Your task to perform on an android device: Open wifi settings Image 0: 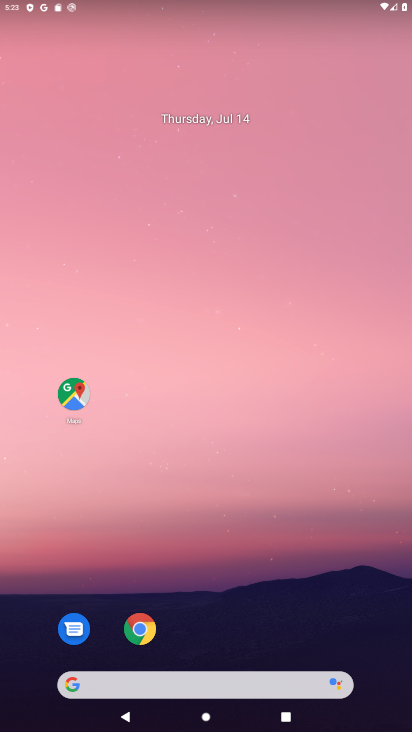
Step 0: drag from (142, 690) to (190, 40)
Your task to perform on an android device: Open wifi settings Image 1: 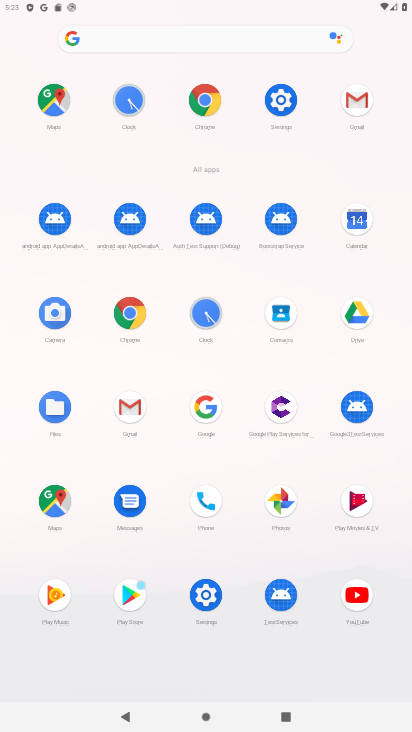
Step 1: click (292, 98)
Your task to perform on an android device: Open wifi settings Image 2: 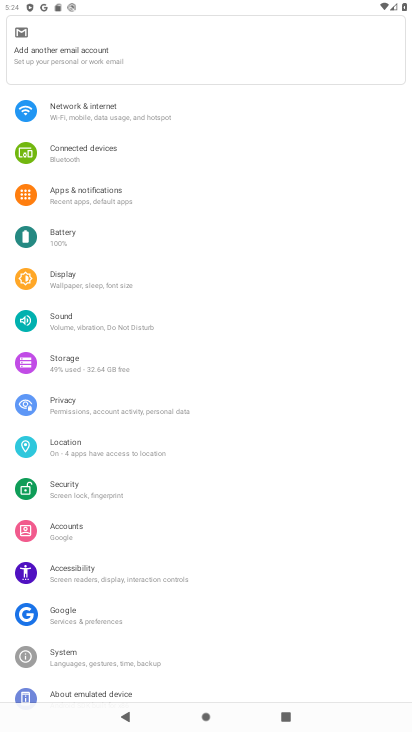
Step 2: click (111, 105)
Your task to perform on an android device: Open wifi settings Image 3: 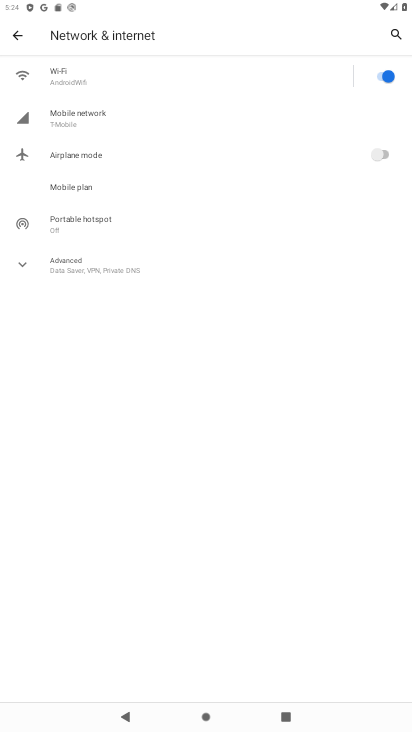
Step 3: click (95, 72)
Your task to perform on an android device: Open wifi settings Image 4: 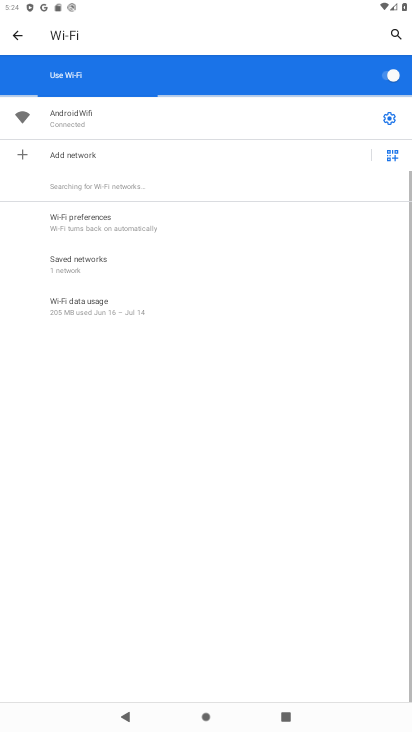
Step 4: task complete